Your task to perform on an android device: toggle show notifications on the lock screen Image 0: 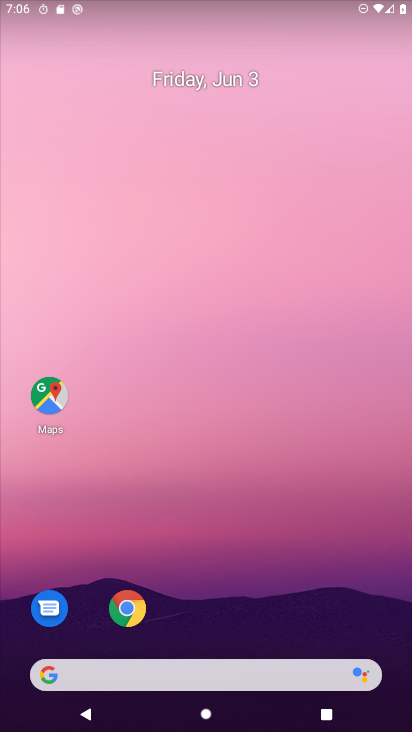
Step 0: drag from (178, 649) to (224, 63)
Your task to perform on an android device: toggle show notifications on the lock screen Image 1: 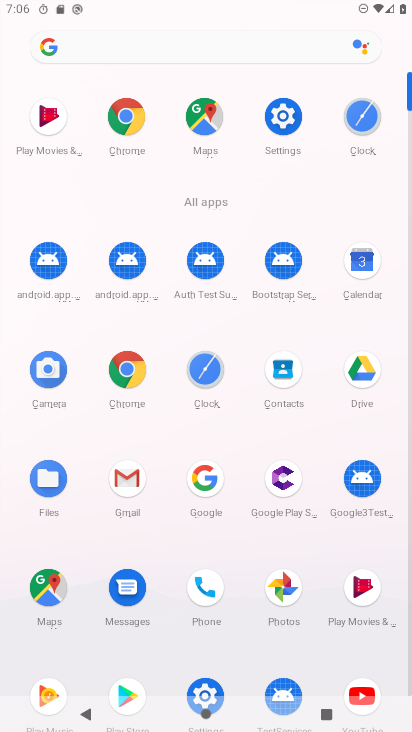
Step 1: click (286, 104)
Your task to perform on an android device: toggle show notifications on the lock screen Image 2: 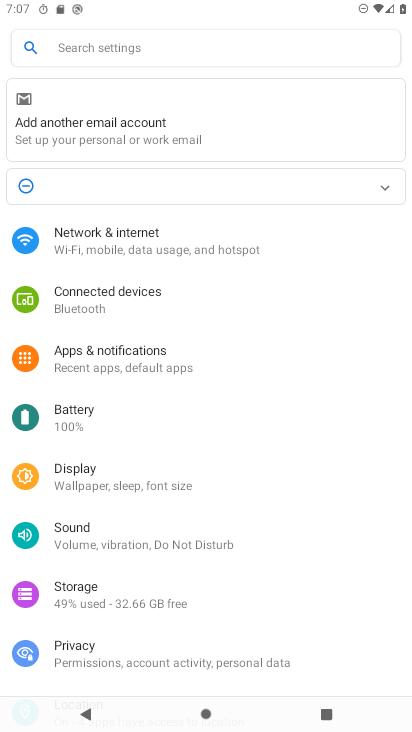
Step 2: click (123, 348)
Your task to perform on an android device: toggle show notifications on the lock screen Image 3: 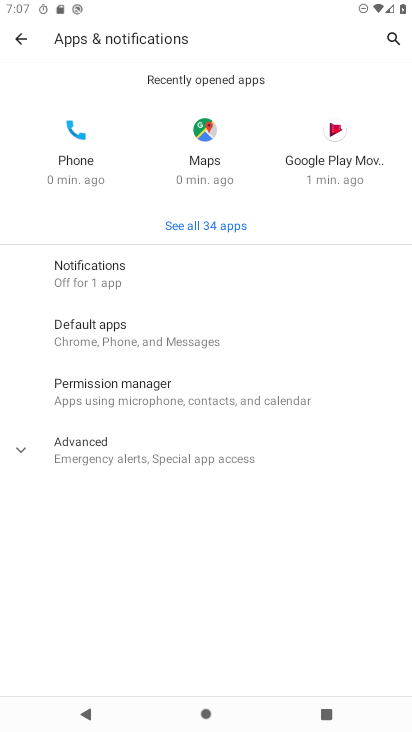
Step 3: click (106, 277)
Your task to perform on an android device: toggle show notifications on the lock screen Image 4: 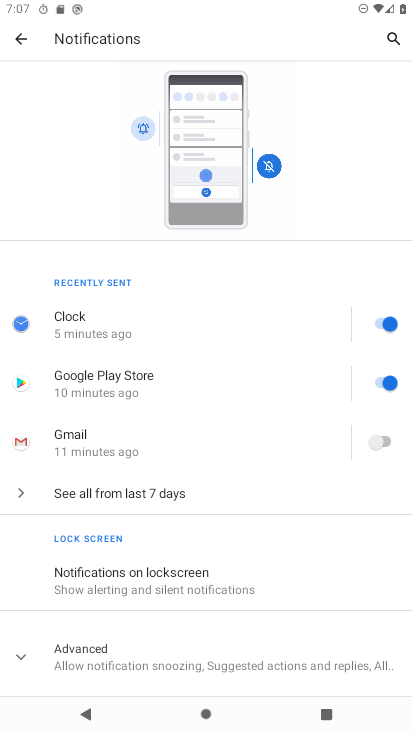
Step 4: click (178, 576)
Your task to perform on an android device: toggle show notifications on the lock screen Image 5: 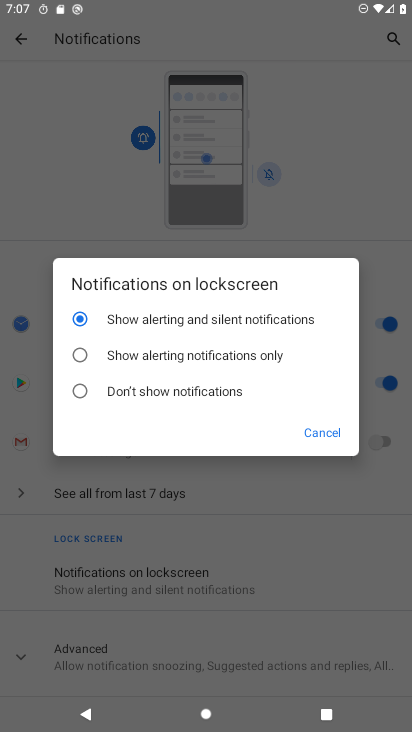
Step 5: task complete